Your task to perform on an android device: check battery use Image 0: 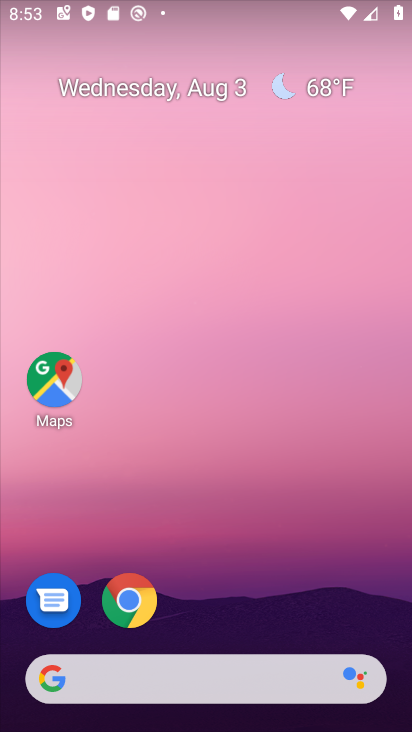
Step 0: drag from (222, 595) to (207, 1)
Your task to perform on an android device: check battery use Image 1: 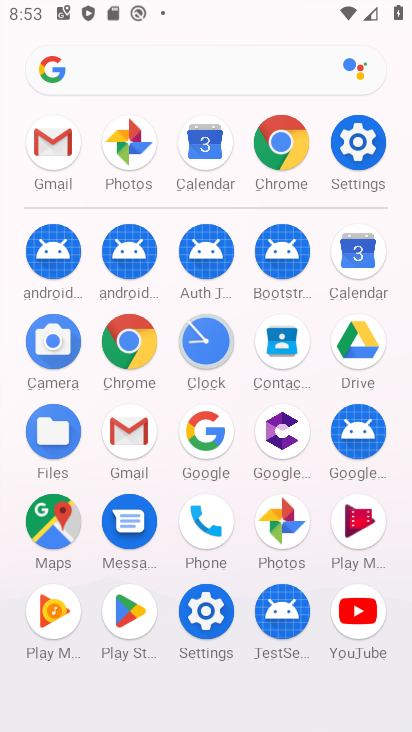
Step 1: click (204, 626)
Your task to perform on an android device: check battery use Image 2: 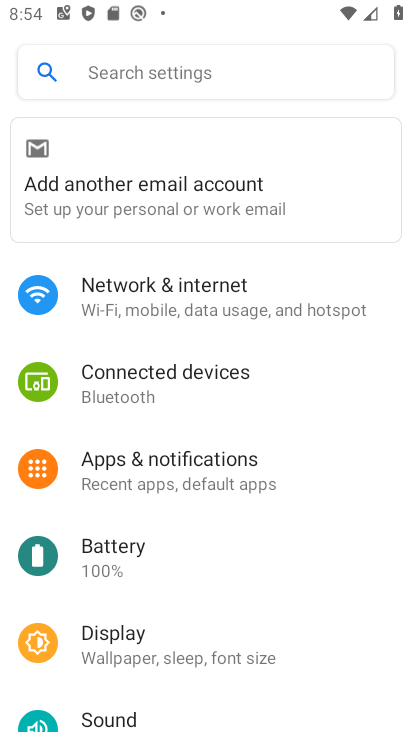
Step 2: click (148, 552)
Your task to perform on an android device: check battery use Image 3: 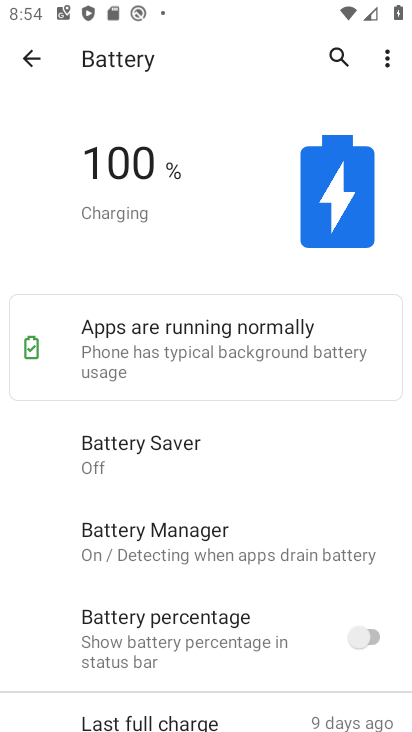
Step 3: click (382, 71)
Your task to perform on an android device: check battery use Image 4: 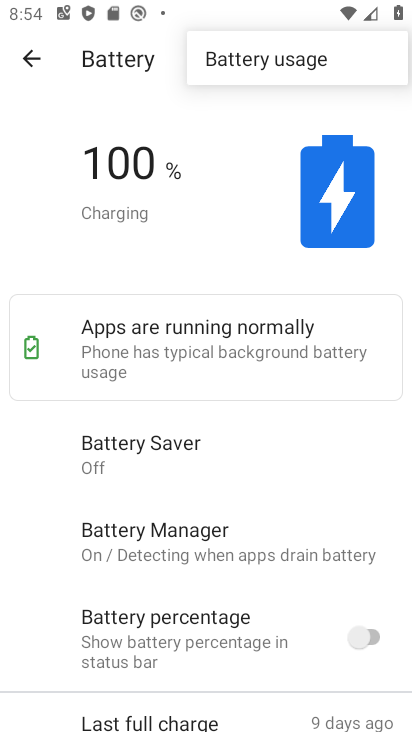
Step 4: click (299, 64)
Your task to perform on an android device: check battery use Image 5: 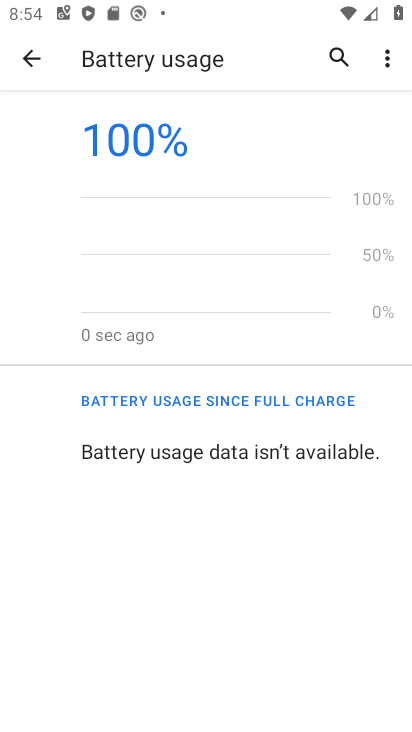
Step 5: task complete